Your task to perform on an android device: Go to ESPN.com Image 0: 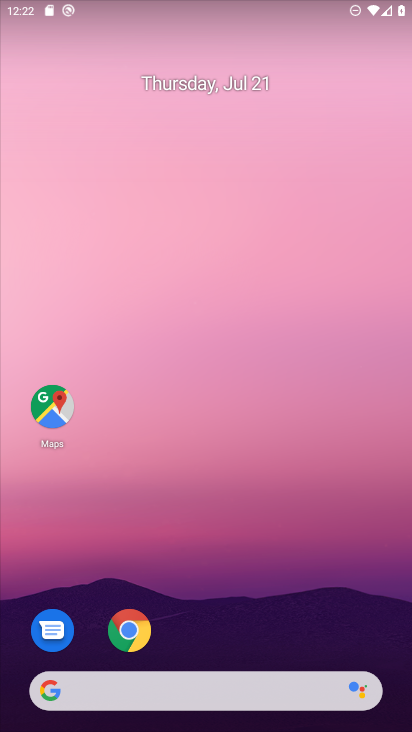
Step 0: drag from (192, 661) to (237, 92)
Your task to perform on an android device: Go to ESPN.com Image 1: 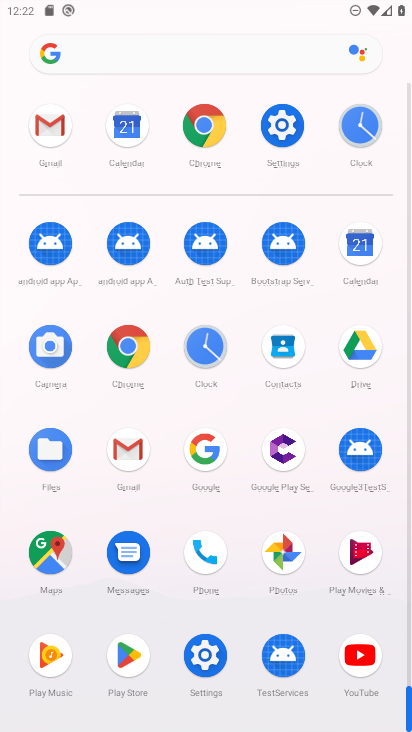
Step 1: click (200, 122)
Your task to perform on an android device: Go to ESPN.com Image 2: 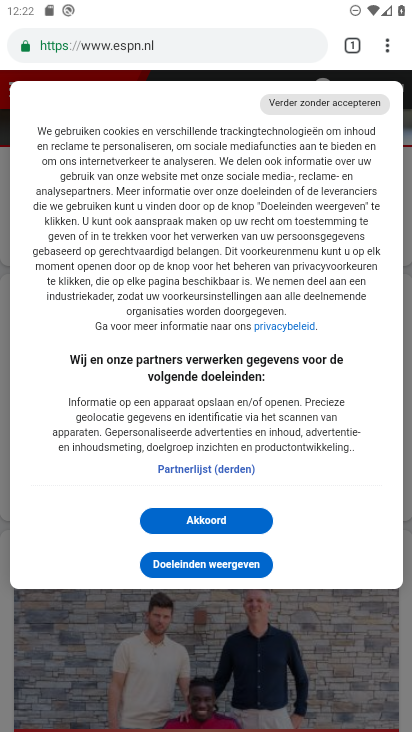
Step 2: task complete